Your task to perform on an android device: Is it going to rain today? Image 0: 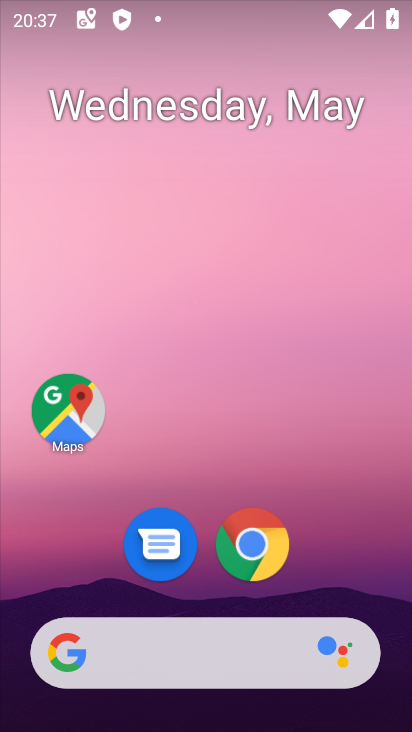
Step 0: click (172, 636)
Your task to perform on an android device: Is it going to rain today? Image 1: 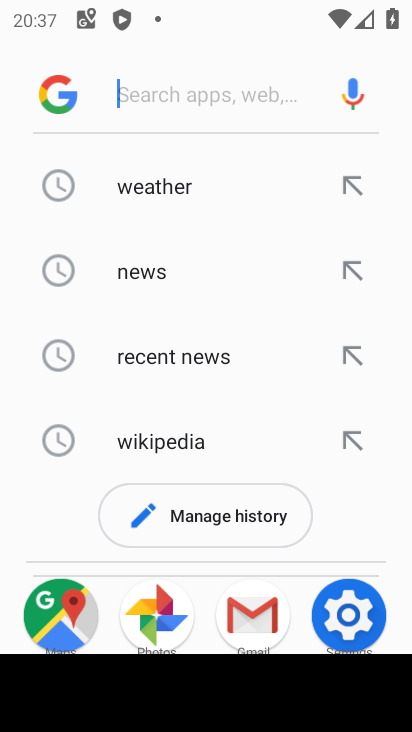
Step 1: click (147, 184)
Your task to perform on an android device: Is it going to rain today? Image 2: 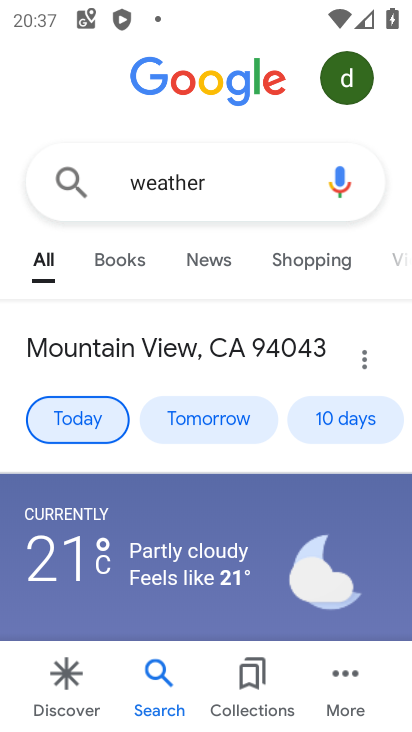
Step 2: task complete